Your task to perform on an android device: install app "Google Play services" Image 0: 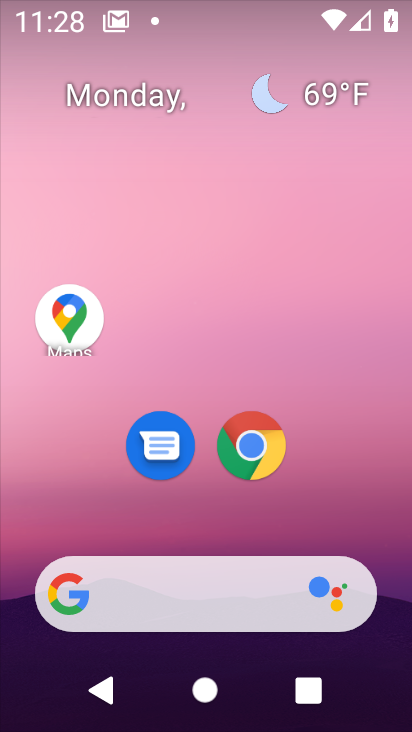
Step 0: drag from (196, 607) to (234, 103)
Your task to perform on an android device: install app "Google Play services" Image 1: 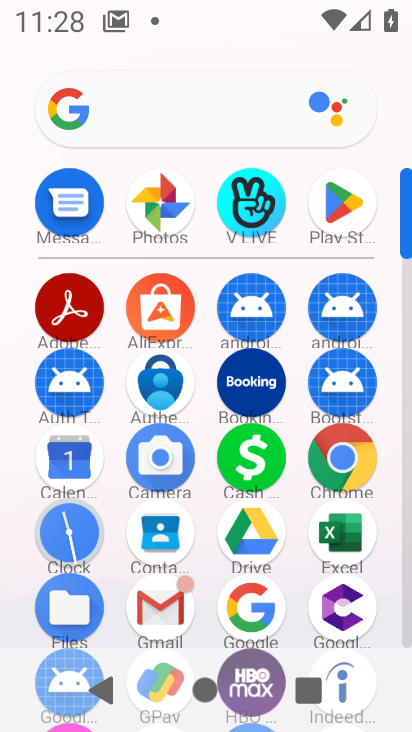
Step 1: click (331, 198)
Your task to perform on an android device: install app "Google Play services" Image 2: 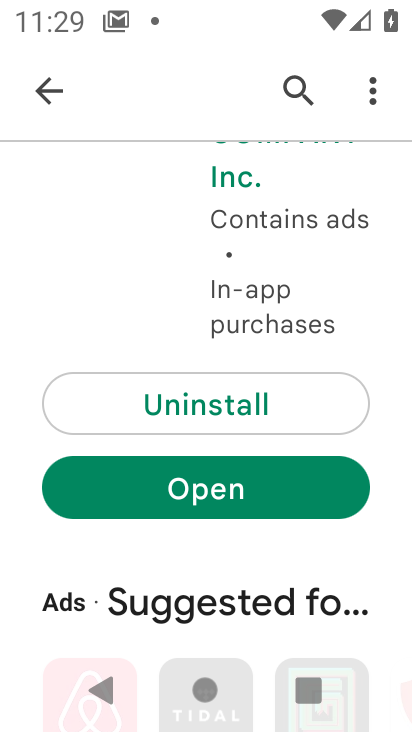
Step 2: click (43, 107)
Your task to perform on an android device: install app "Google Play services" Image 3: 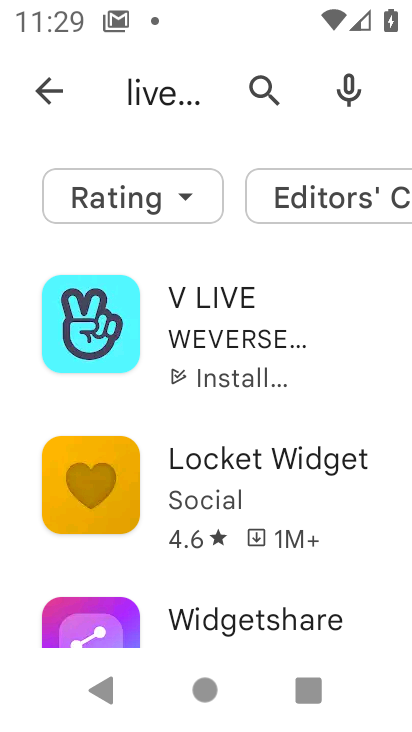
Step 3: click (42, 79)
Your task to perform on an android device: install app "Google Play services" Image 4: 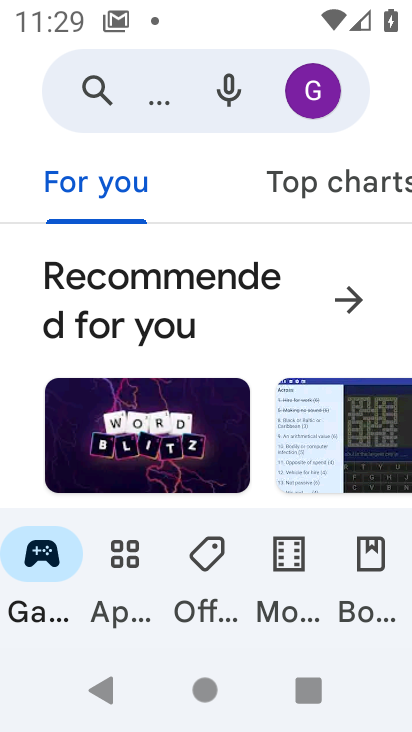
Step 4: click (82, 95)
Your task to perform on an android device: install app "Google Play services" Image 5: 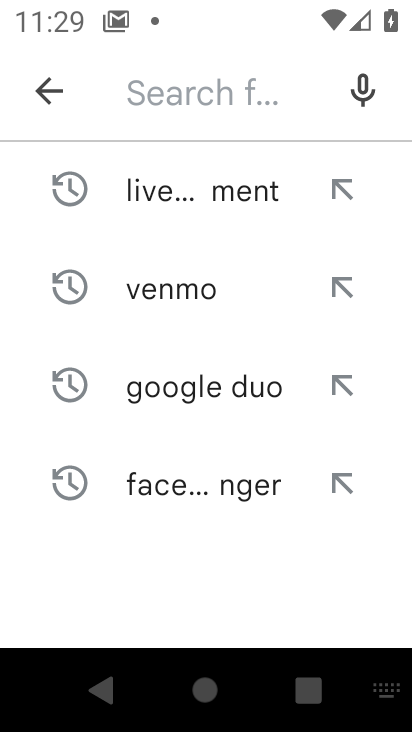
Step 5: type "Google Play services"
Your task to perform on an android device: install app "Google Play services" Image 6: 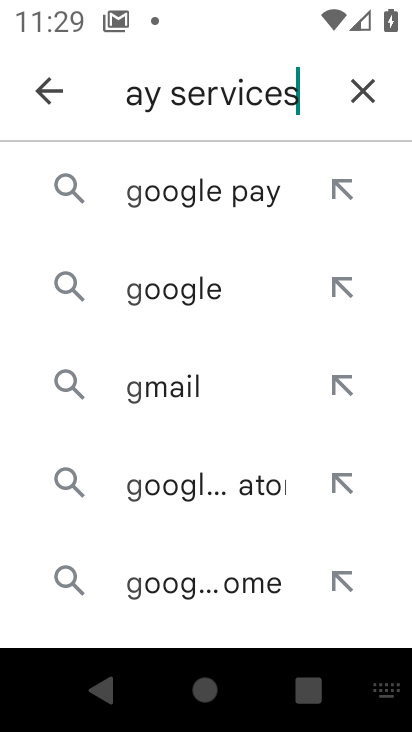
Step 6: type ""
Your task to perform on an android device: install app "Google Play services" Image 7: 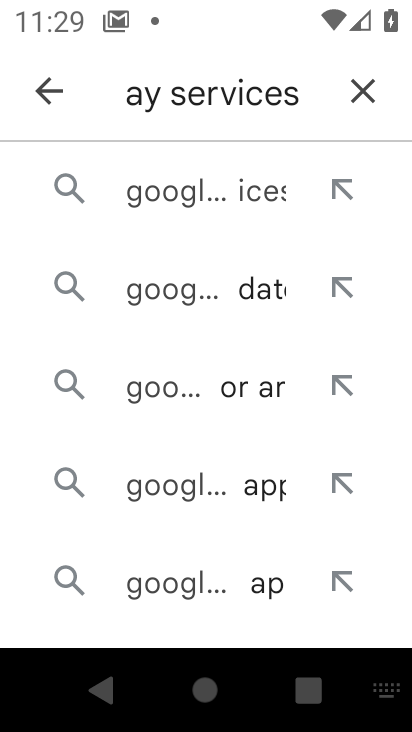
Step 7: click (152, 185)
Your task to perform on an android device: install app "Google Play services" Image 8: 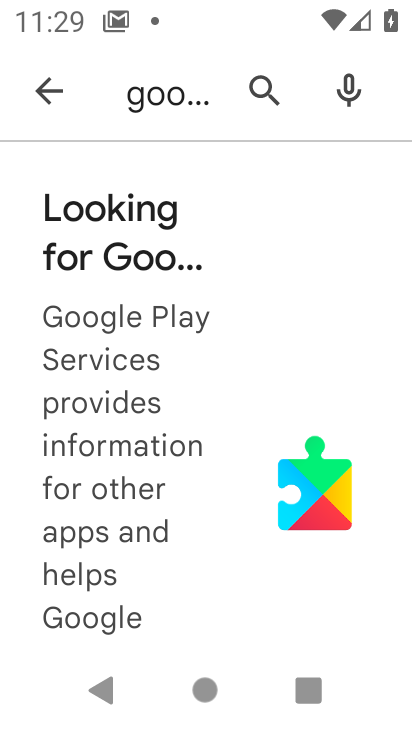
Step 8: task complete